Your task to perform on an android device: show emergency info Image 0: 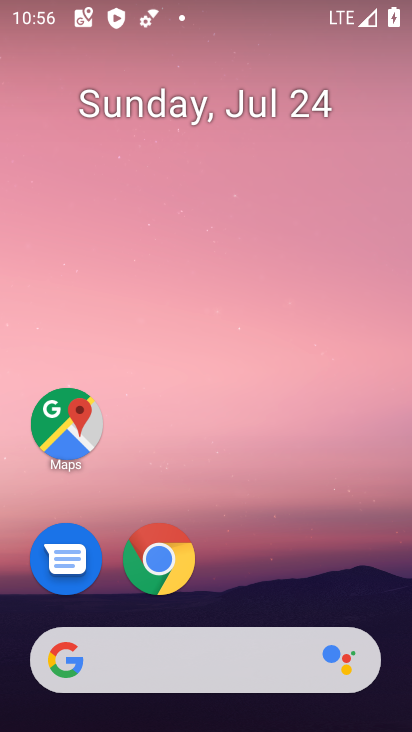
Step 0: drag from (259, 508) to (250, 29)
Your task to perform on an android device: show emergency info Image 1: 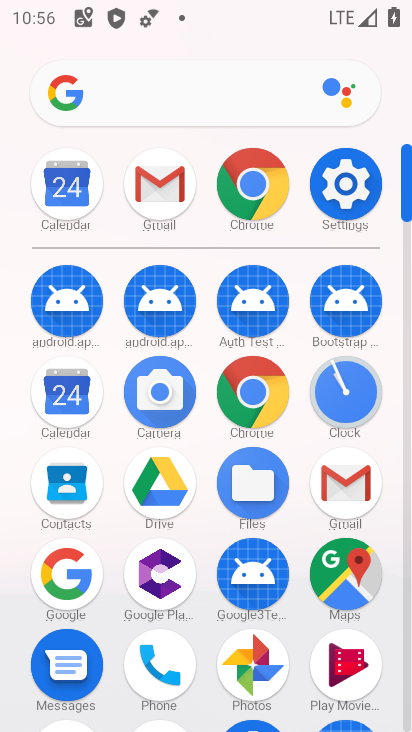
Step 1: click (348, 178)
Your task to perform on an android device: show emergency info Image 2: 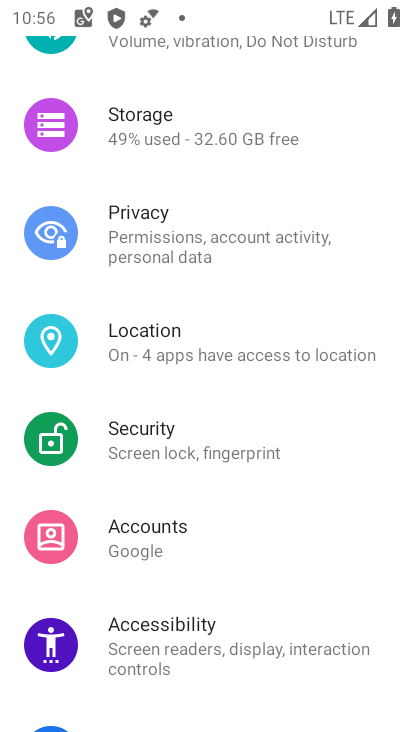
Step 2: drag from (183, 679) to (274, 7)
Your task to perform on an android device: show emergency info Image 3: 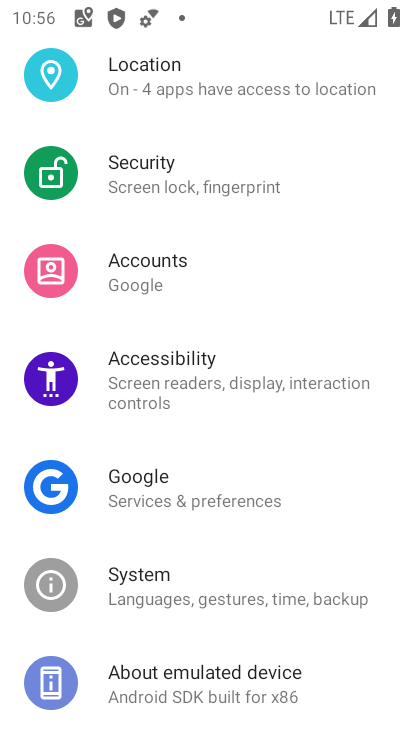
Step 3: click (154, 686)
Your task to perform on an android device: show emergency info Image 4: 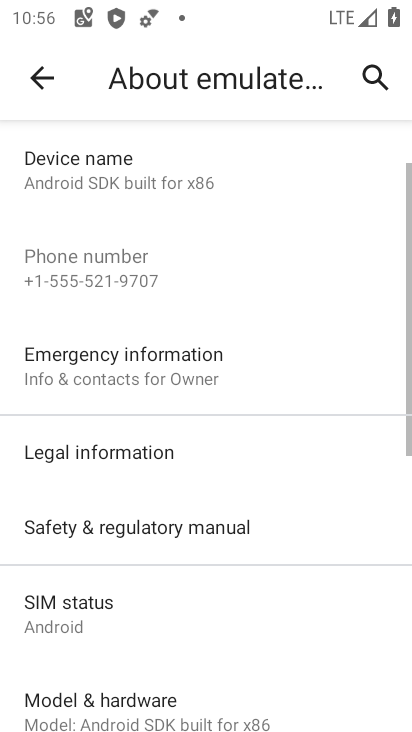
Step 4: click (124, 374)
Your task to perform on an android device: show emergency info Image 5: 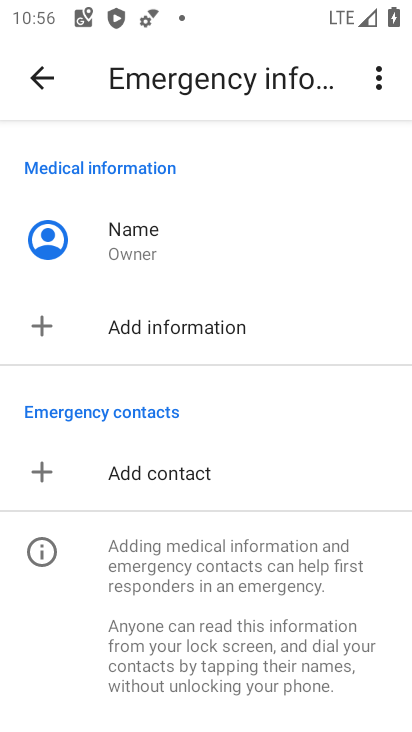
Step 5: task complete